Your task to perform on an android device: Clear all items from cart on ebay. Add "alienware aurora" to the cart on ebay Image 0: 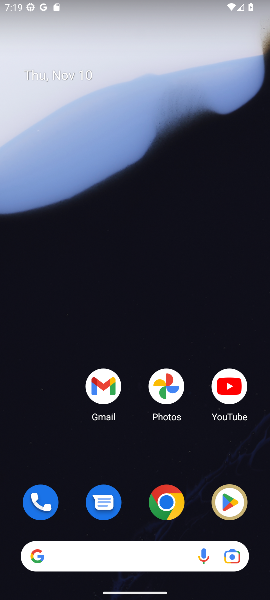
Step 0: drag from (142, 351) to (69, 14)
Your task to perform on an android device: Clear all items from cart on ebay. Add "alienware aurora" to the cart on ebay Image 1: 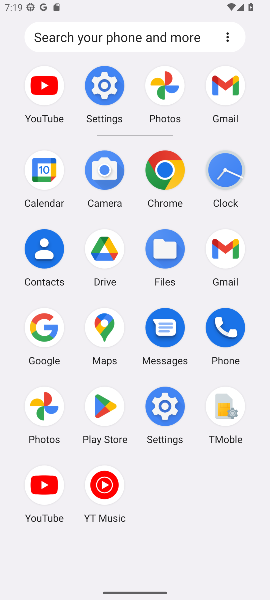
Step 1: click (45, 337)
Your task to perform on an android device: Clear all items from cart on ebay. Add "alienware aurora" to the cart on ebay Image 2: 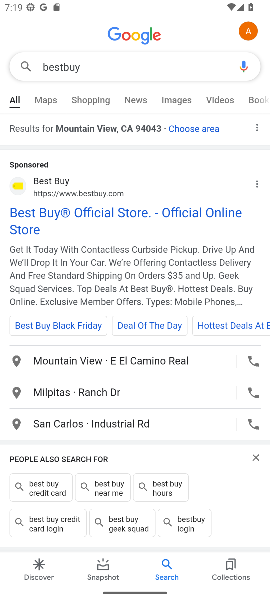
Step 2: click (151, 64)
Your task to perform on an android device: Clear all items from cart on ebay. Add "alienware aurora" to the cart on ebay Image 3: 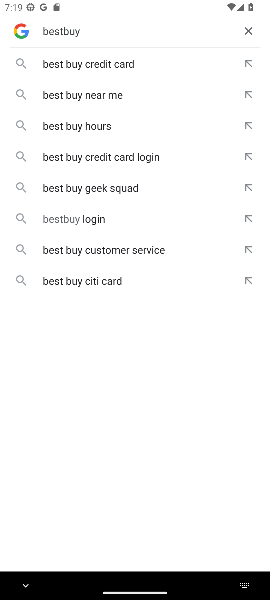
Step 3: click (251, 28)
Your task to perform on an android device: Clear all items from cart on ebay. Add "alienware aurora" to the cart on ebay Image 4: 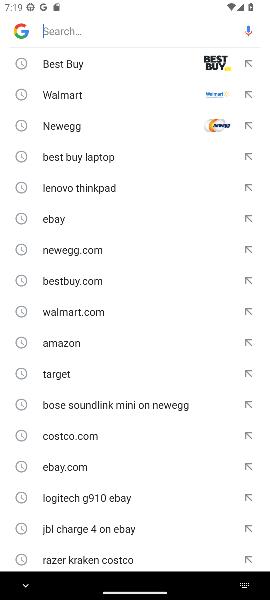
Step 4: type "ebay"
Your task to perform on an android device: Clear all items from cart on ebay. Add "alienware aurora" to the cart on ebay Image 5: 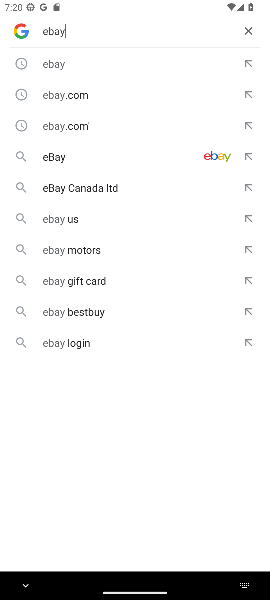
Step 5: click (93, 154)
Your task to perform on an android device: Clear all items from cart on ebay. Add "alienware aurora" to the cart on ebay Image 6: 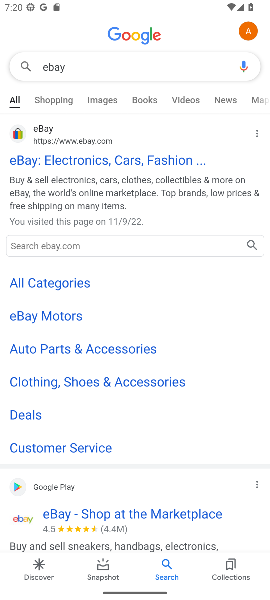
Step 6: click (43, 129)
Your task to perform on an android device: Clear all items from cart on ebay. Add "alienware aurora" to the cart on ebay Image 7: 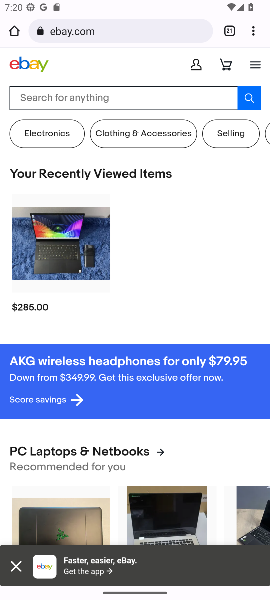
Step 7: click (9, 568)
Your task to perform on an android device: Clear all items from cart on ebay. Add "alienware aurora" to the cart on ebay Image 8: 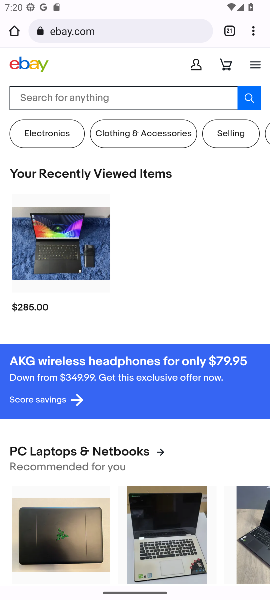
Step 8: click (224, 70)
Your task to perform on an android device: Clear all items from cart on ebay. Add "alienware aurora" to the cart on ebay Image 9: 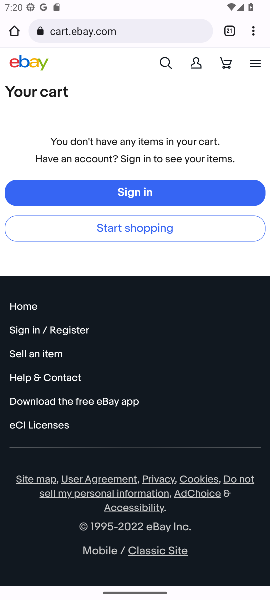
Step 9: click (166, 65)
Your task to perform on an android device: Clear all items from cart on ebay. Add "alienware aurora" to the cart on ebay Image 10: 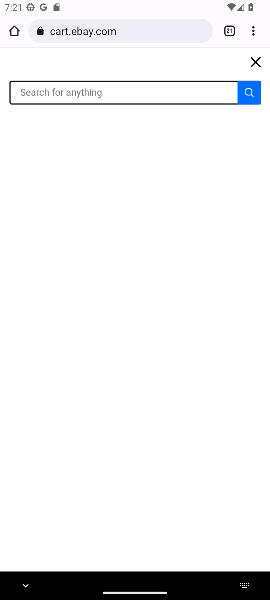
Step 10: type "alienware aurora"
Your task to perform on an android device: Clear all items from cart on ebay. Add "alienware aurora" to the cart on ebay Image 11: 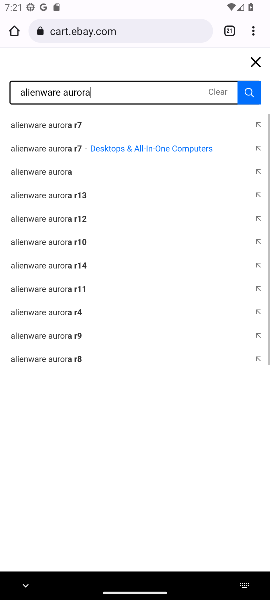
Step 11: click (48, 176)
Your task to perform on an android device: Clear all items from cart on ebay. Add "alienware aurora" to the cart on ebay Image 12: 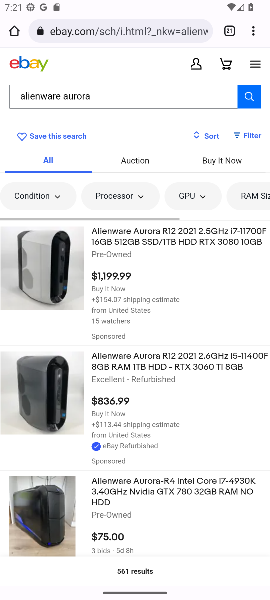
Step 12: click (136, 240)
Your task to perform on an android device: Clear all items from cart on ebay. Add "alienware aurora" to the cart on ebay Image 13: 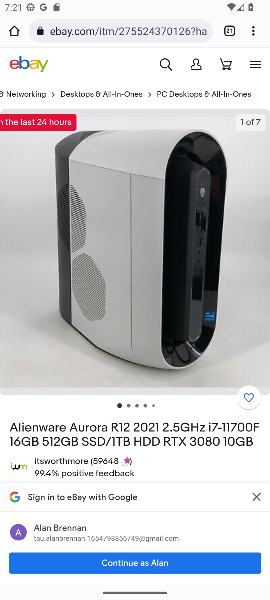
Step 13: drag from (191, 451) to (222, 135)
Your task to perform on an android device: Clear all items from cart on ebay. Add "alienware aurora" to the cart on ebay Image 14: 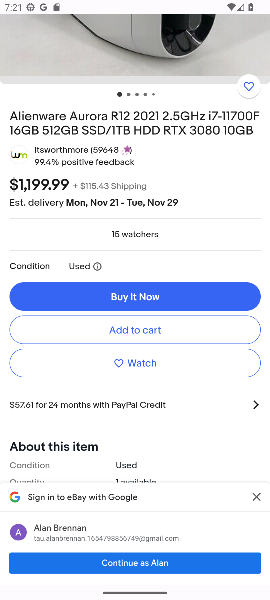
Step 14: click (128, 326)
Your task to perform on an android device: Clear all items from cart on ebay. Add "alienware aurora" to the cart on ebay Image 15: 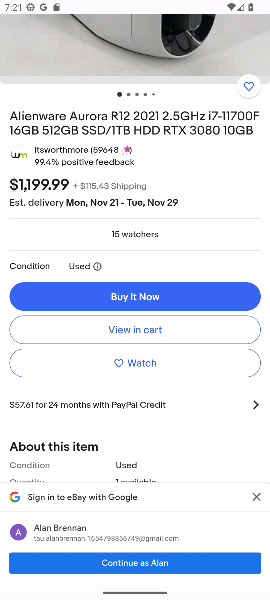
Step 15: click (122, 334)
Your task to perform on an android device: Clear all items from cart on ebay. Add "alienware aurora" to the cart on ebay Image 16: 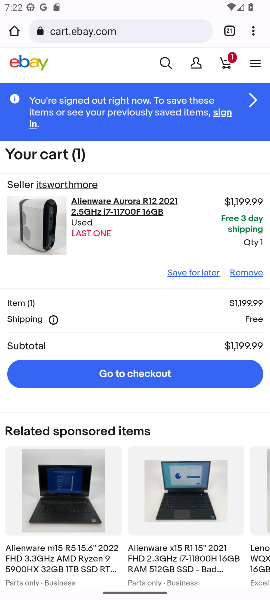
Step 16: click (122, 368)
Your task to perform on an android device: Clear all items from cart on ebay. Add "alienware aurora" to the cart on ebay Image 17: 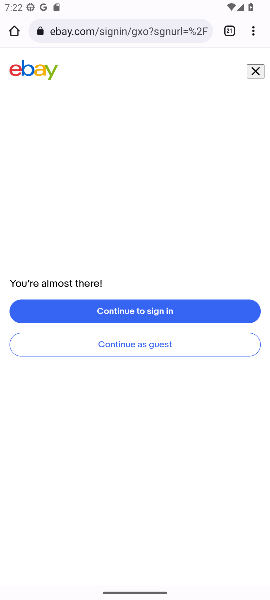
Step 17: task complete